Your task to perform on an android device: Open Google Chrome Image 0: 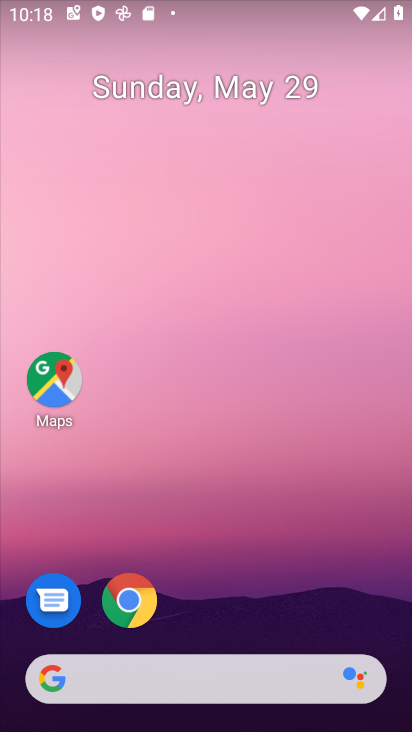
Step 0: click (129, 596)
Your task to perform on an android device: Open Google Chrome Image 1: 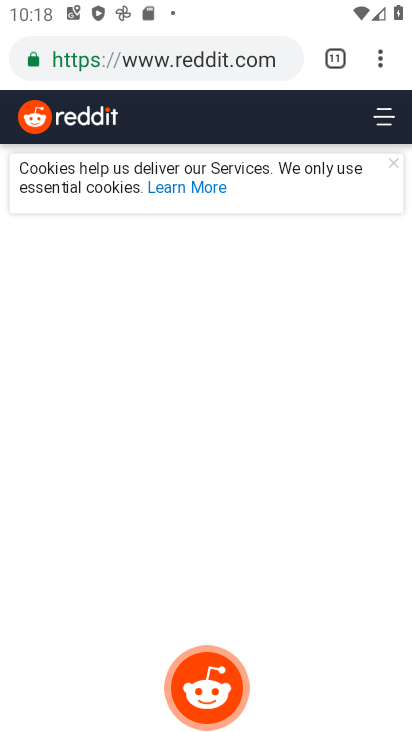
Step 1: task complete